Your task to perform on an android device: add a contact Image 0: 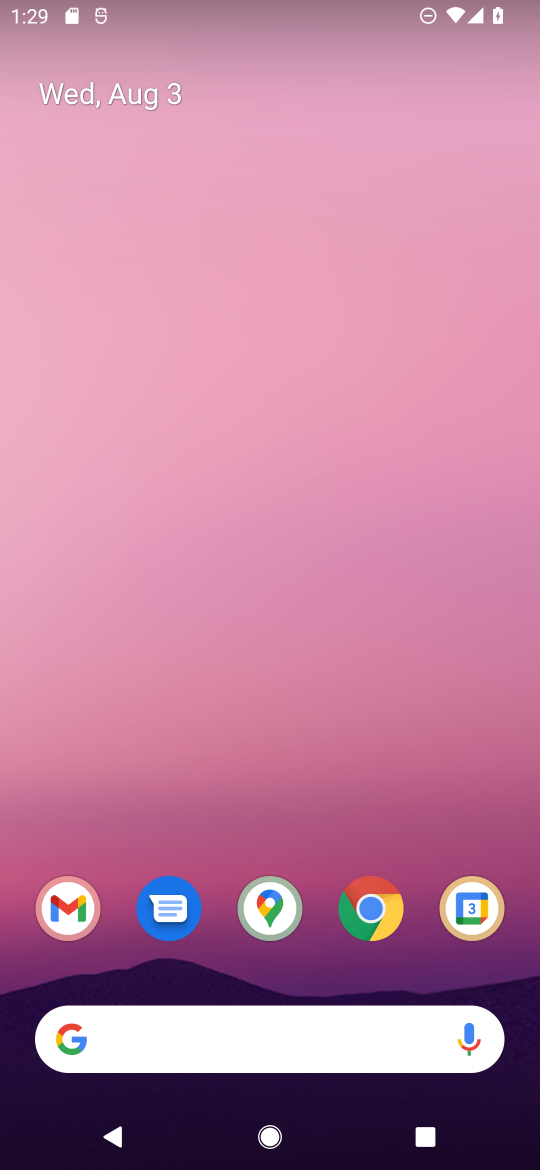
Step 0: drag from (296, 869) to (311, 253)
Your task to perform on an android device: add a contact Image 1: 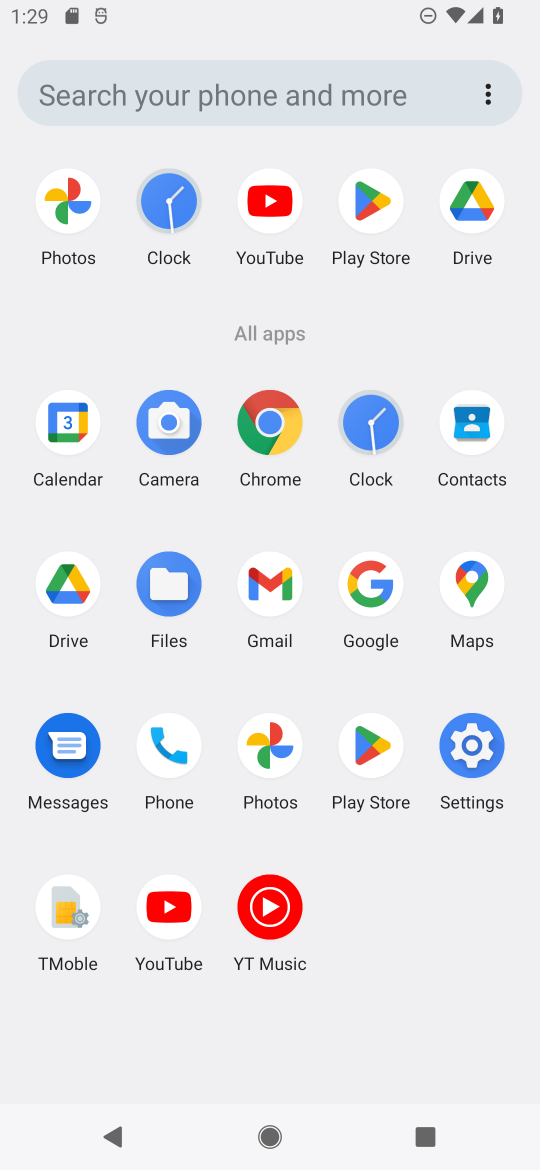
Step 1: click (467, 465)
Your task to perform on an android device: add a contact Image 2: 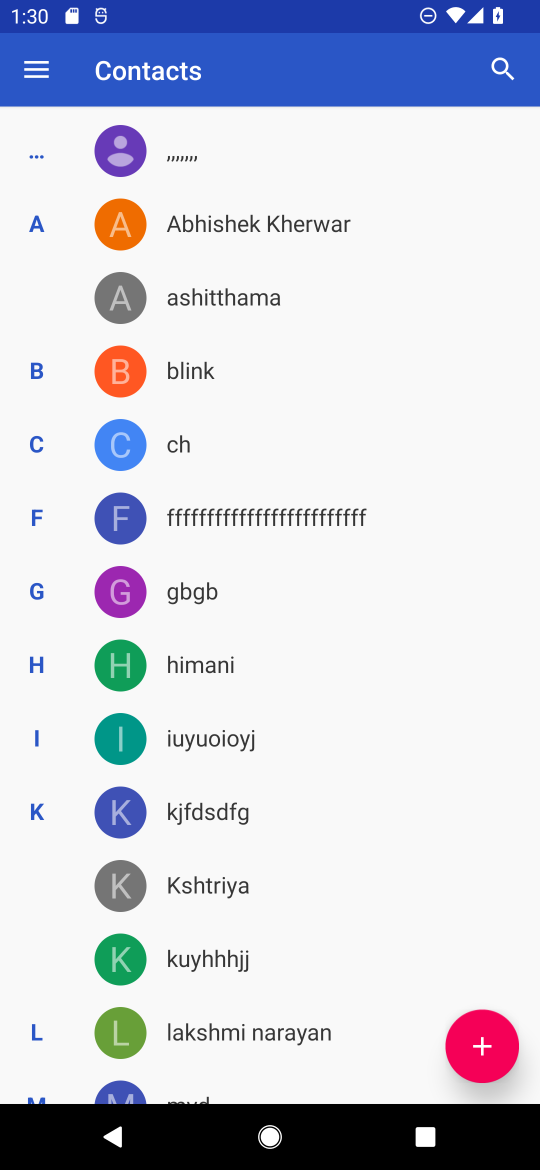
Step 2: click (479, 1041)
Your task to perform on an android device: add a contact Image 3: 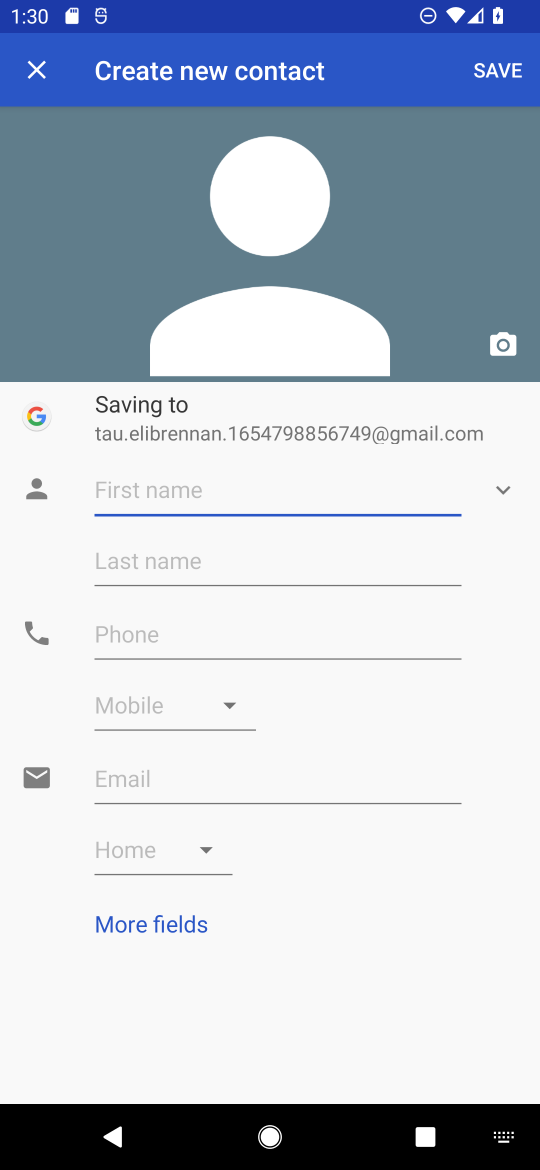
Step 3: type "Sanem"
Your task to perform on an android device: add a contact Image 4: 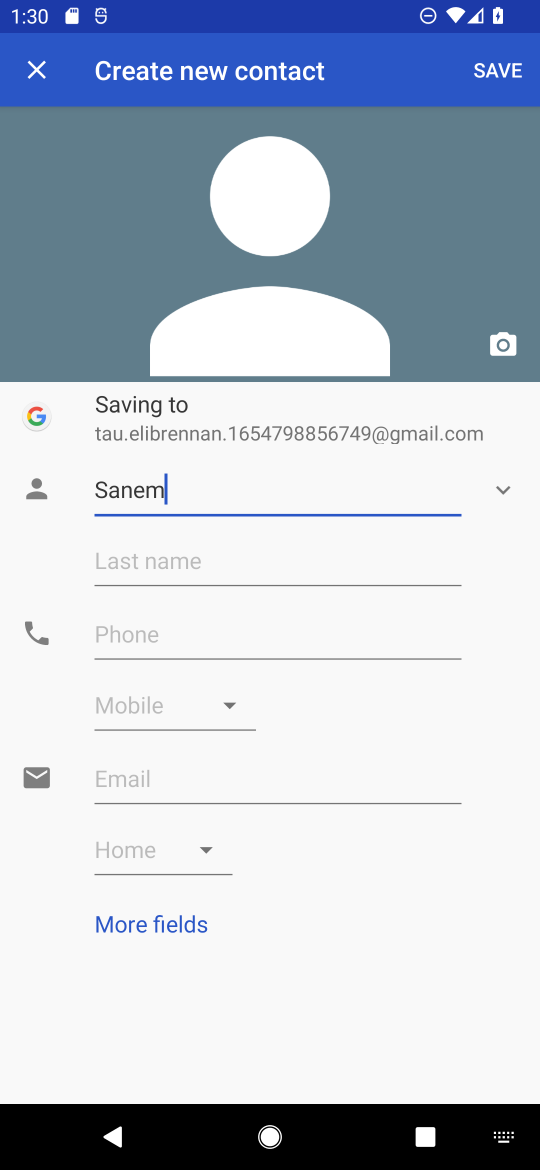
Step 4: click (145, 541)
Your task to perform on an android device: add a contact Image 5: 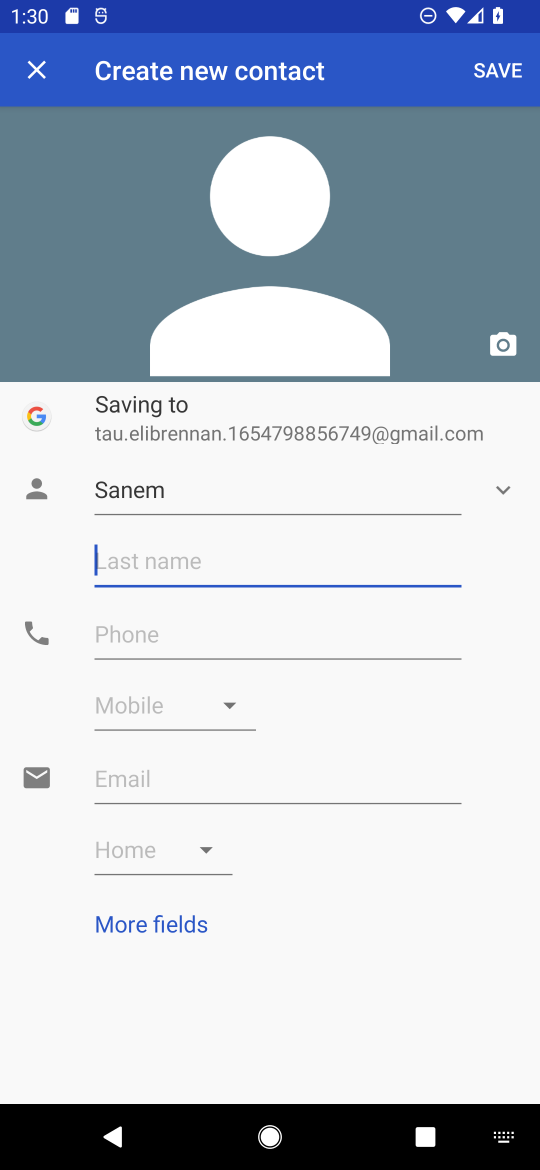
Step 5: click (310, 627)
Your task to perform on an android device: add a contact Image 6: 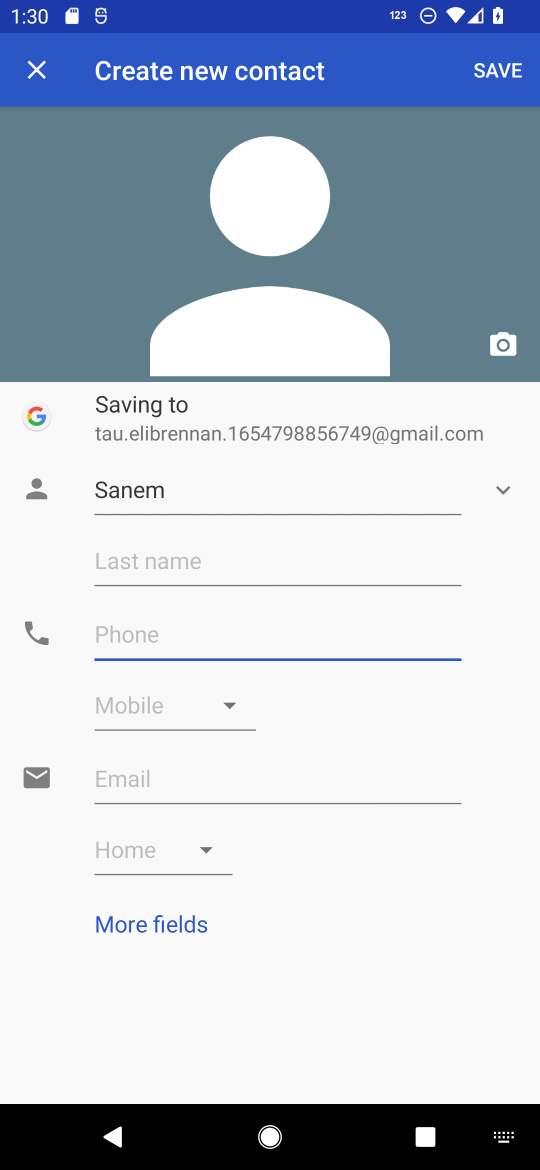
Step 6: type "7890987789"
Your task to perform on an android device: add a contact Image 7: 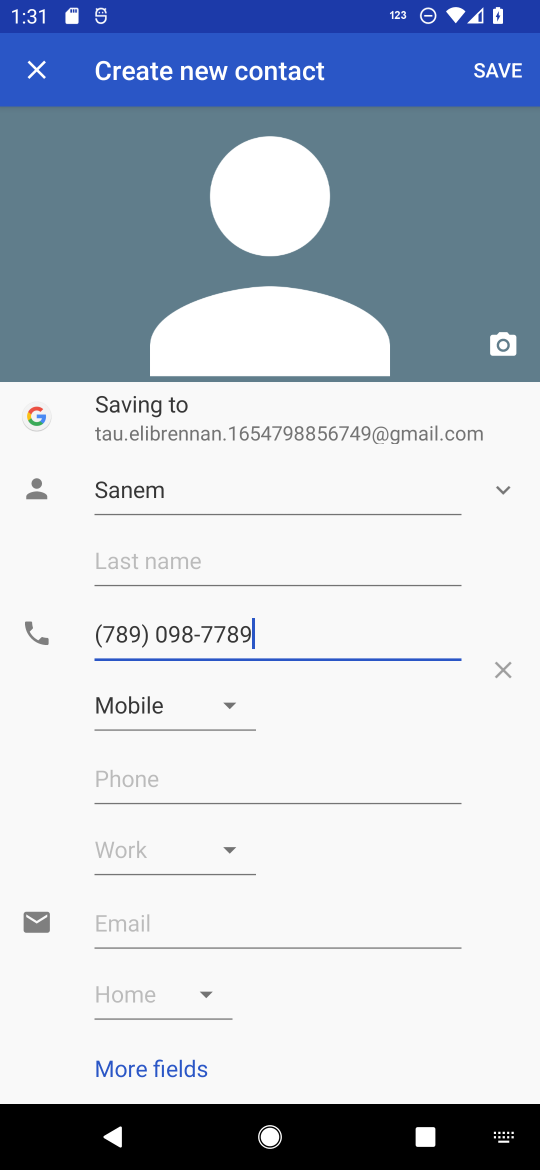
Step 7: click (510, 62)
Your task to perform on an android device: add a contact Image 8: 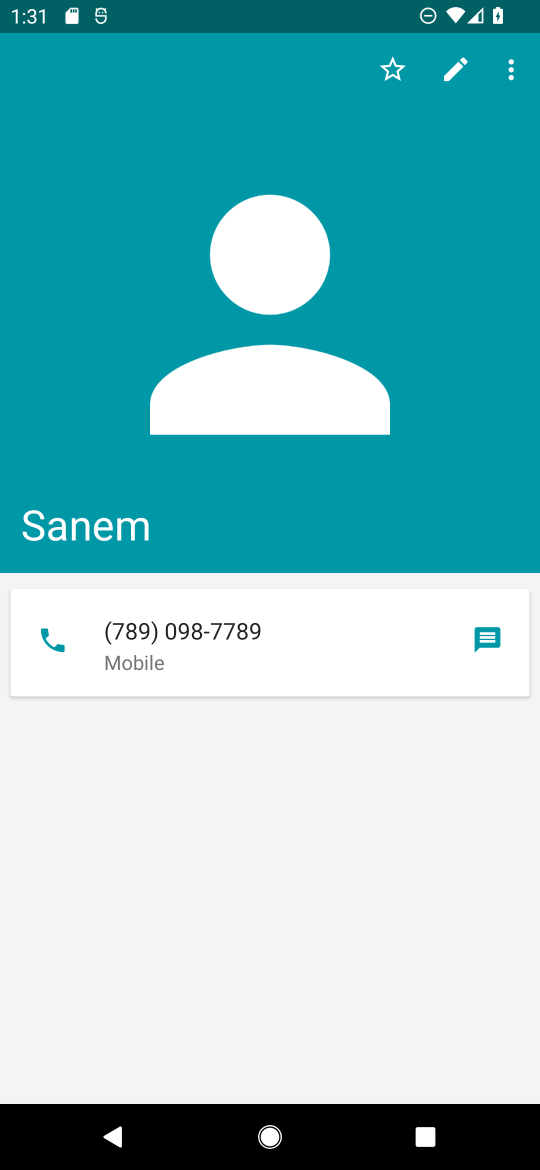
Step 8: task complete